Your task to perform on an android device: read, delete, or share a saved page in the chrome app Image 0: 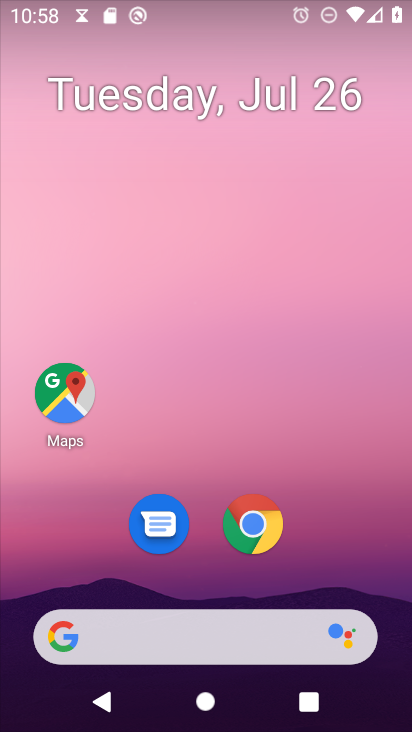
Step 0: click (250, 519)
Your task to perform on an android device: read, delete, or share a saved page in the chrome app Image 1: 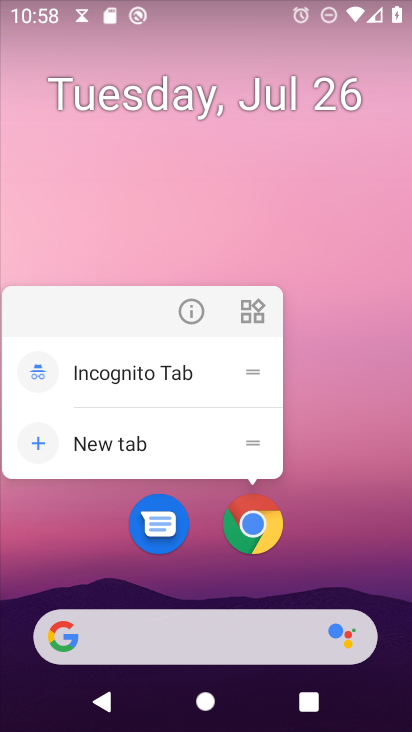
Step 1: click (252, 520)
Your task to perform on an android device: read, delete, or share a saved page in the chrome app Image 2: 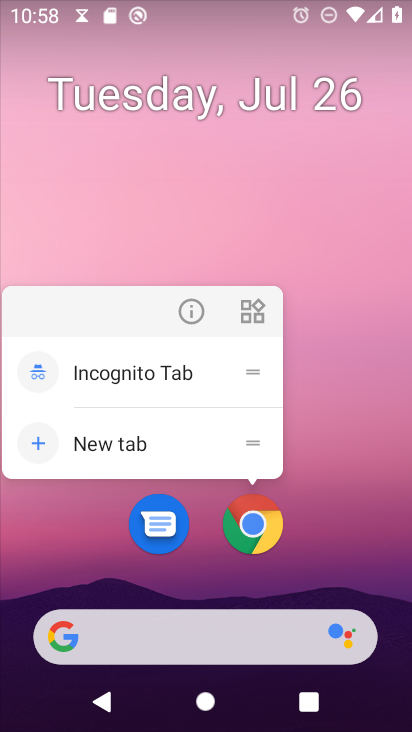
Step 2: click (252, 521)
Your task to perform on an android device: read, delete, or share a saved page in the chrome app Image 3: 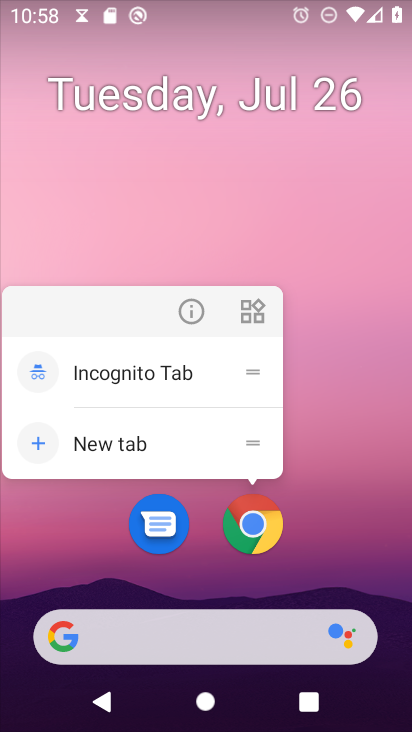
Step 3: click (252, 521)
Your task to perform on an android device: read, delete, or share a saved page in the chrome app Image 4: 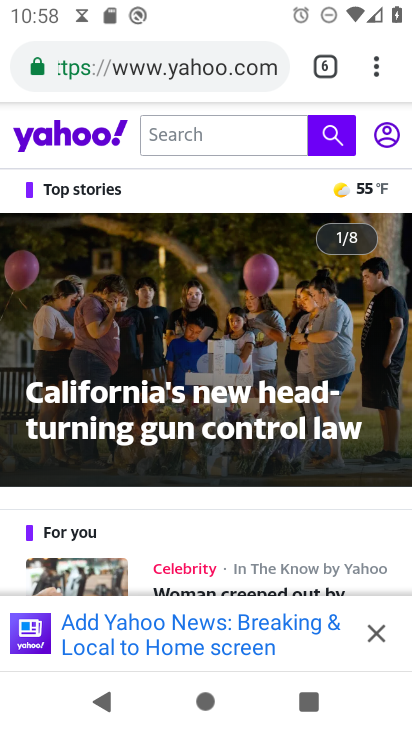
Step 4: drag from (372, 62) to (194, 415)
Your task to perform on an android device: read, delete, or share a saved page in the chrome app Image 5: 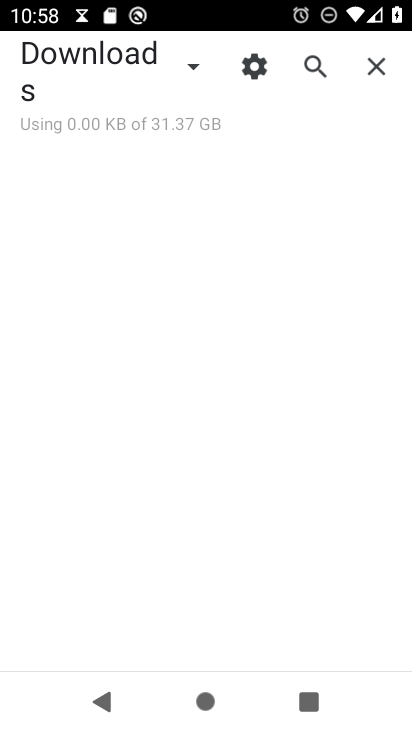
Step 5: click (179, 55)
Your task to perform on an android device: read, delete, or share a saved page in the chrome app Image 6: 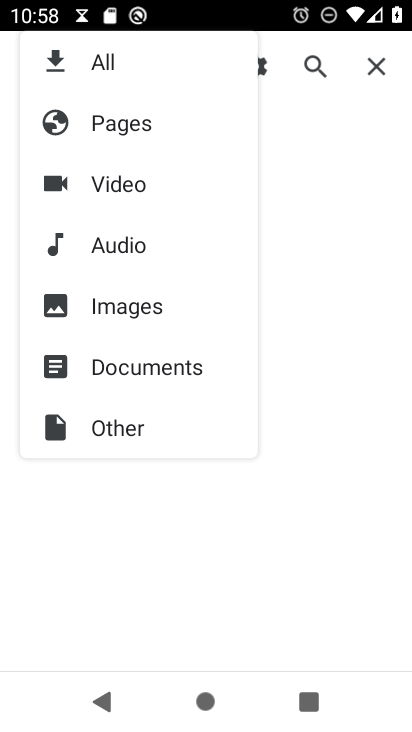
Step 6: click (142, 126)
Your task to perform on an android device: read, delete, or share a saved page in the chrome app Image 7: 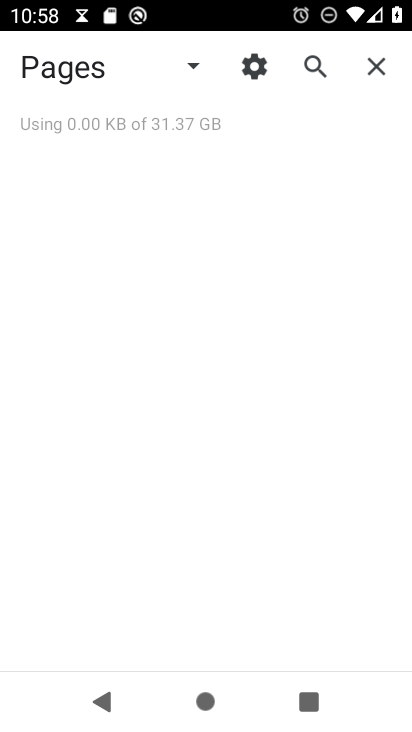
Step 7: task complete